Your task to perform on an android device: Show me the alarms in the clock app Image 0: 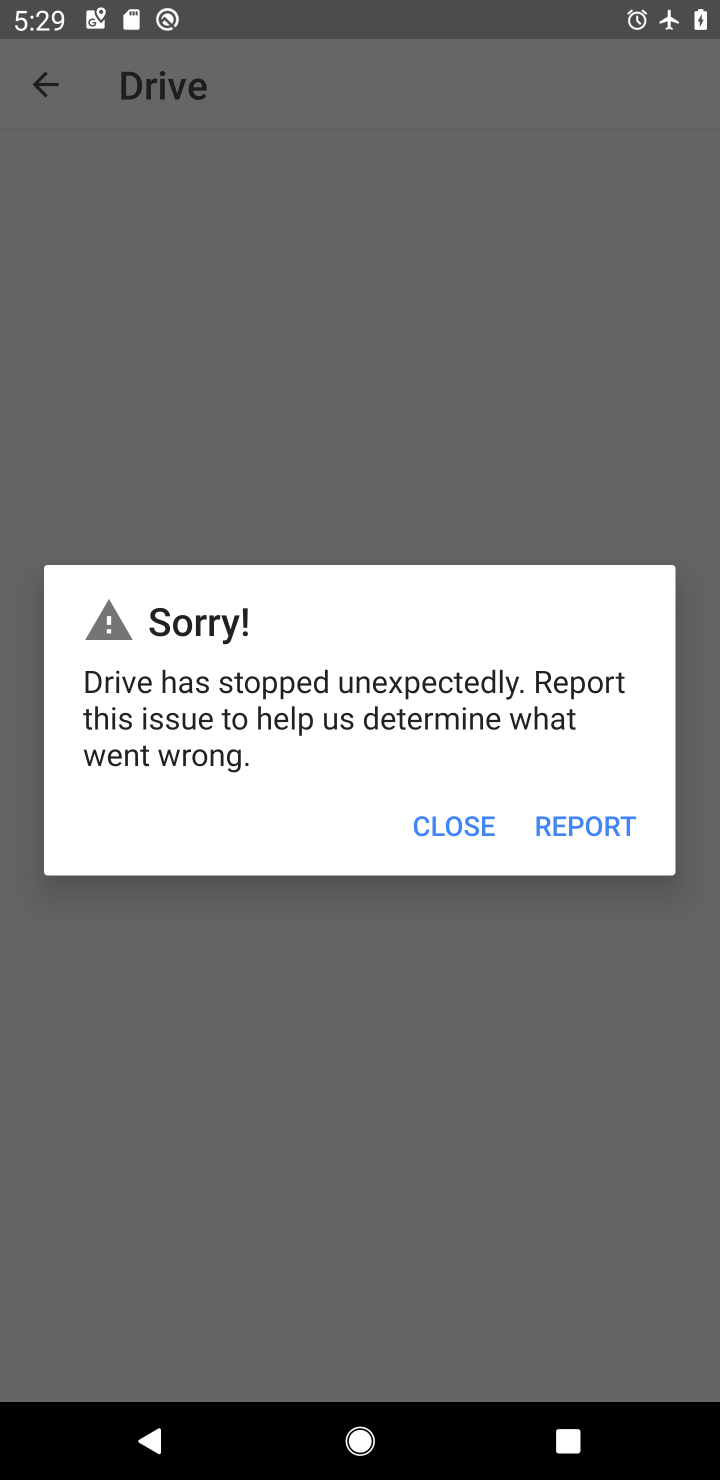
Step 0: press home button
Your task to perform on an android device: Show me the alarms in the clock app Image 1: 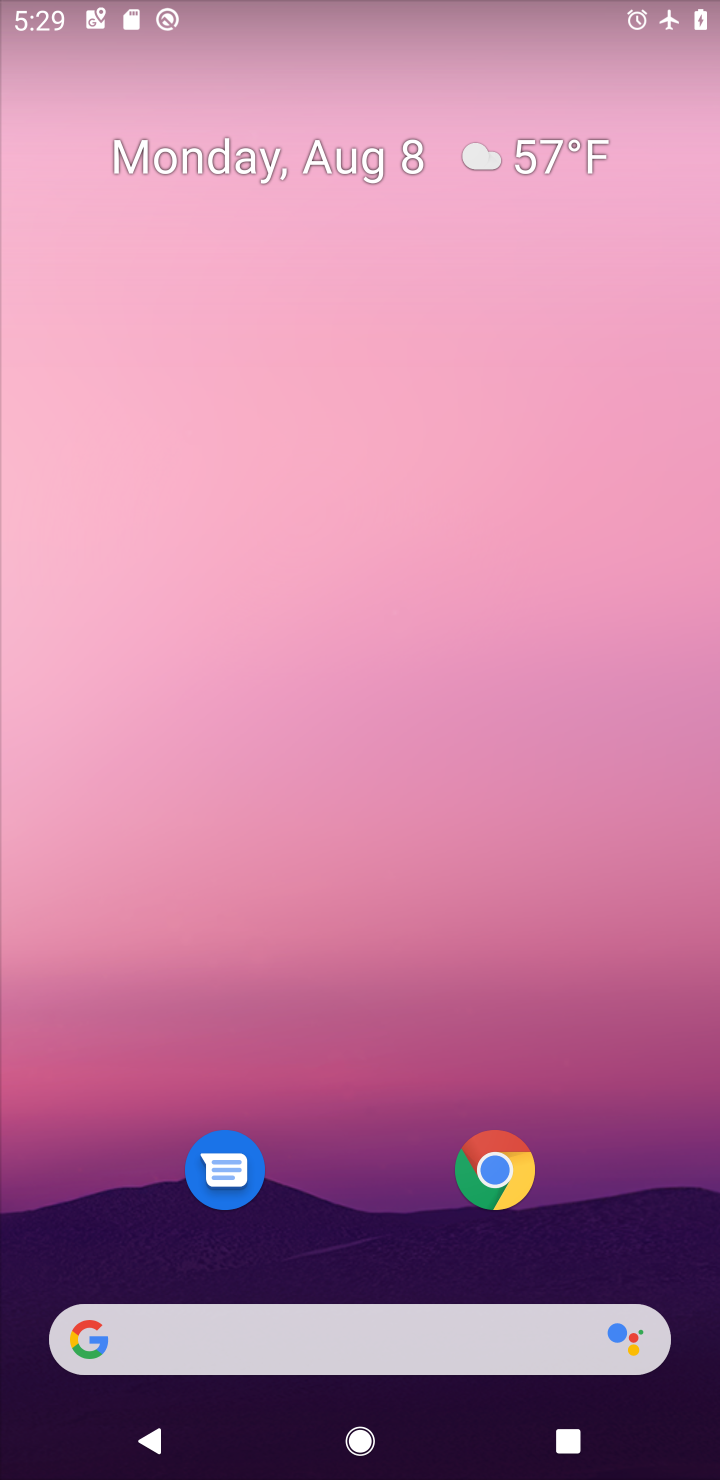
Step 1: drag from (309, 672) to (288, 419)
Your task to perform on an android device: Show me the alarms in the clock app Image 2: 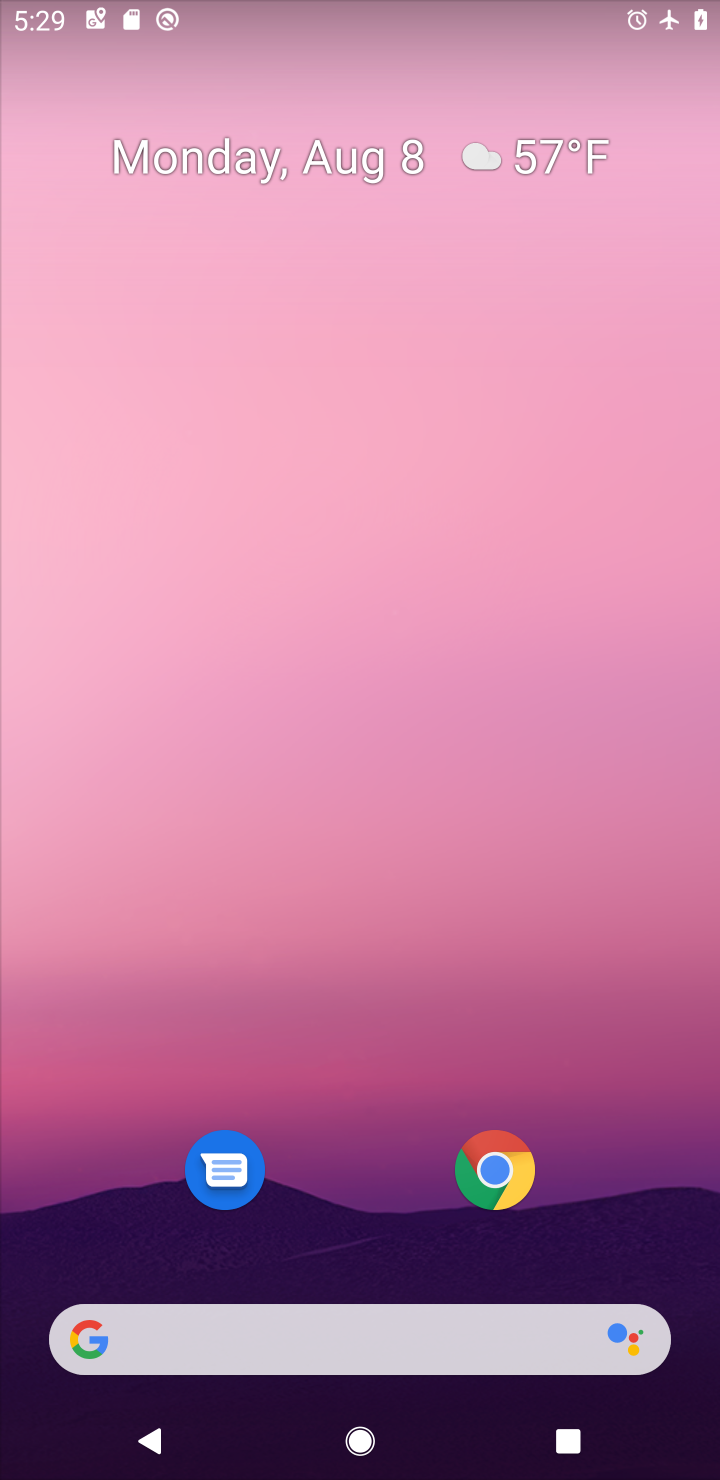
Step 2: drag from (350, 729) to (357, 269)
Your task to perform on an android device: Show me the alarms in the clock app Image 3: 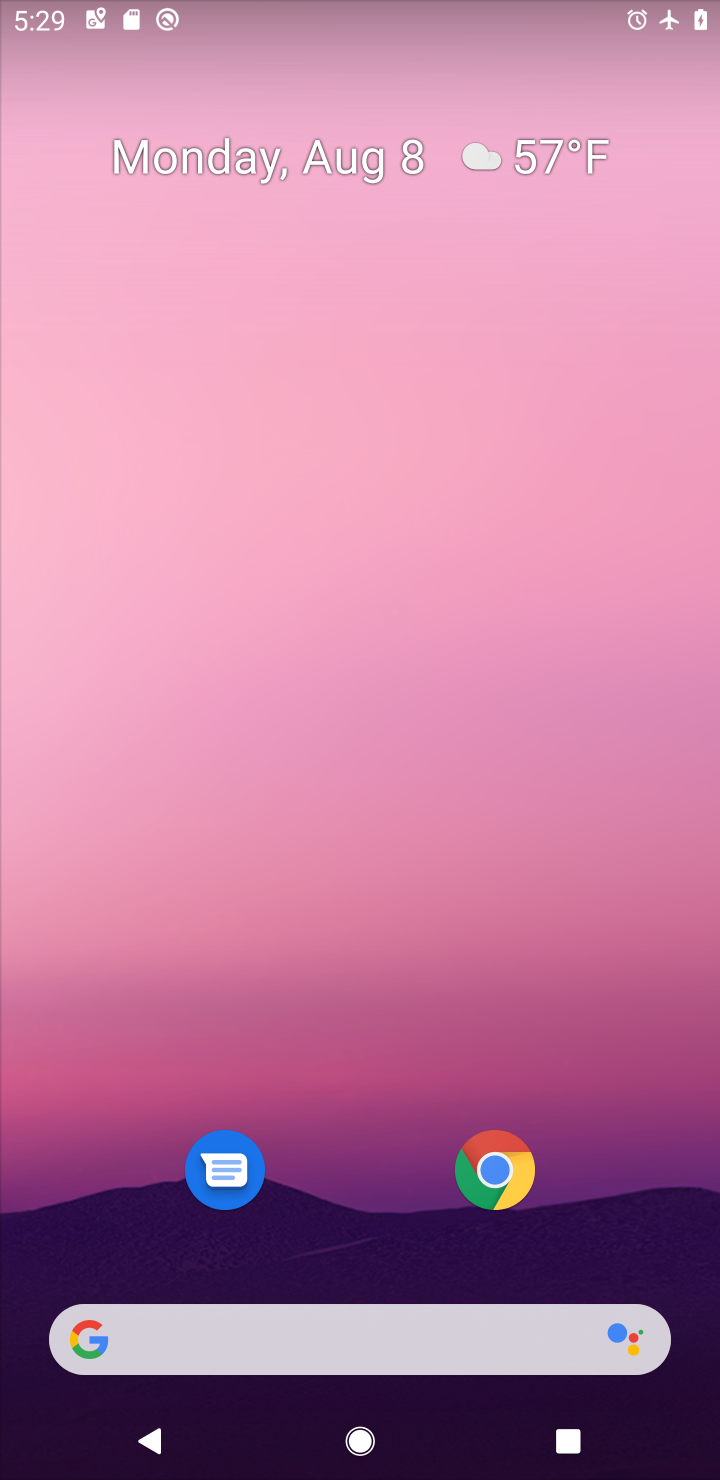
Step 3: drag from (360, 1122) to (415, 333)
Your task to perform on an android device: Show me the alarms in the clock app Image 4: 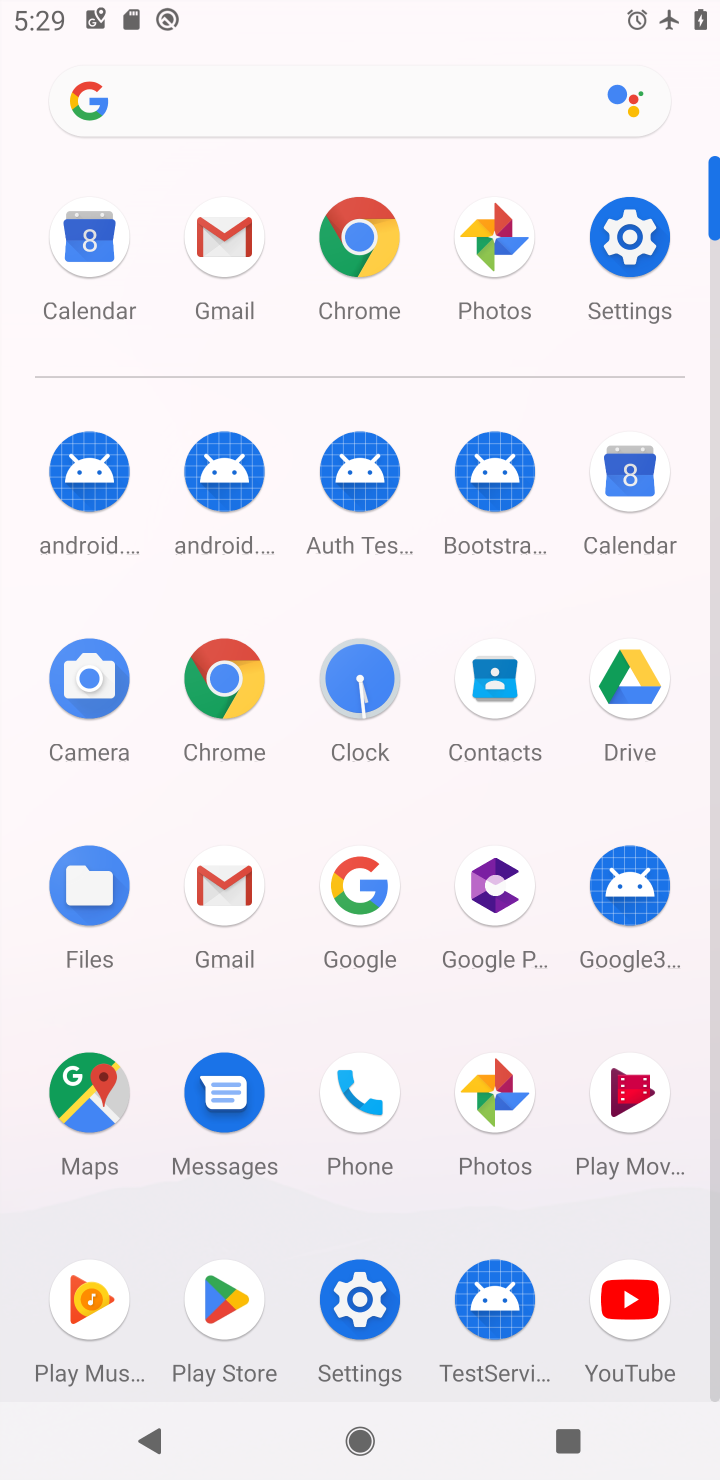
Step 4: click (353, 718)
Your task to perform on an android device: Show me the alarms in the clock app Image 5: 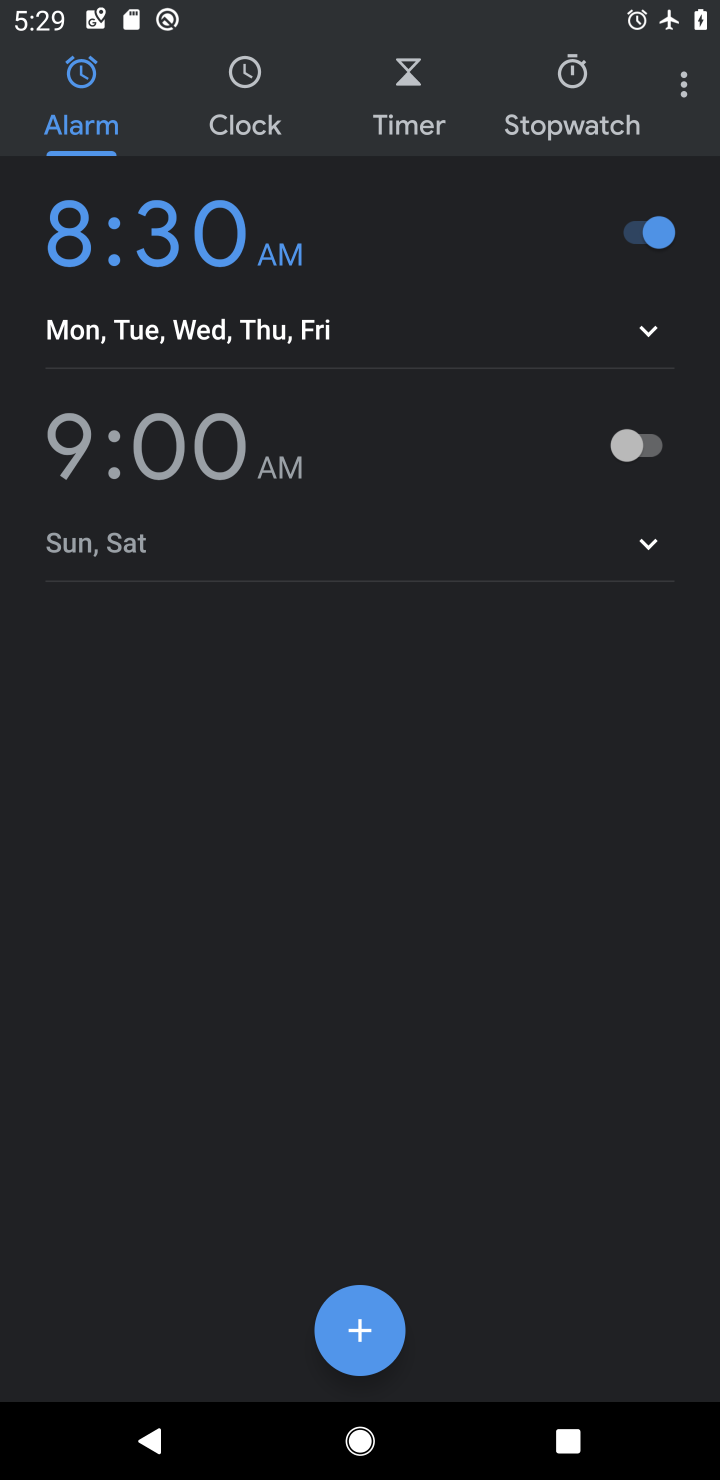
Step 5: task complete